Your task to perform on an android device: open device folders in google photos Image 0: 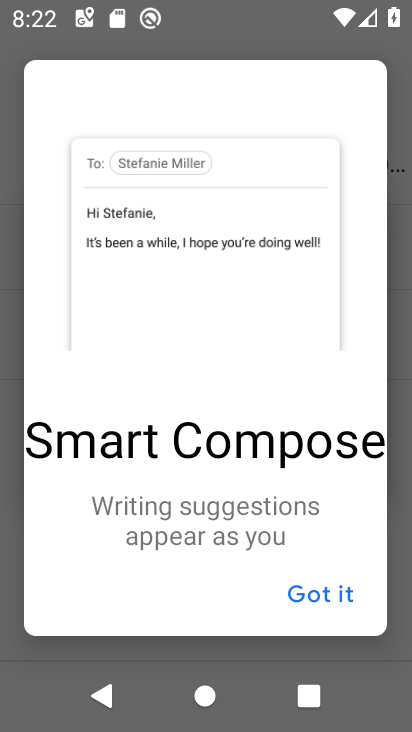
Step 0: press home button
Your task to perform on an android device: open device folders in google photos Image 1: 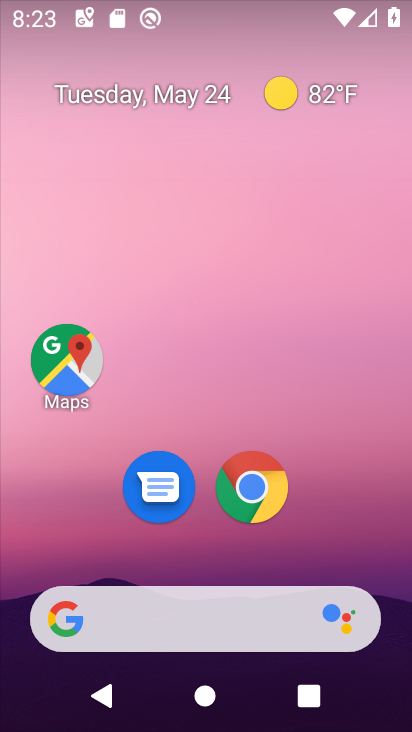
Step 1: drag from (351, 552) to (361, 99)
Your task to perform on an android device: open device folders in google photos Image 2: 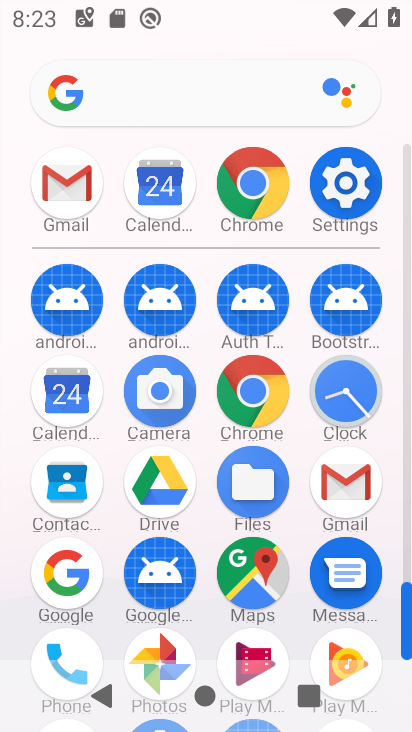
Step 2: click (164, 650)
Your task to perform on an android device: open device folders in google photos Image 3: 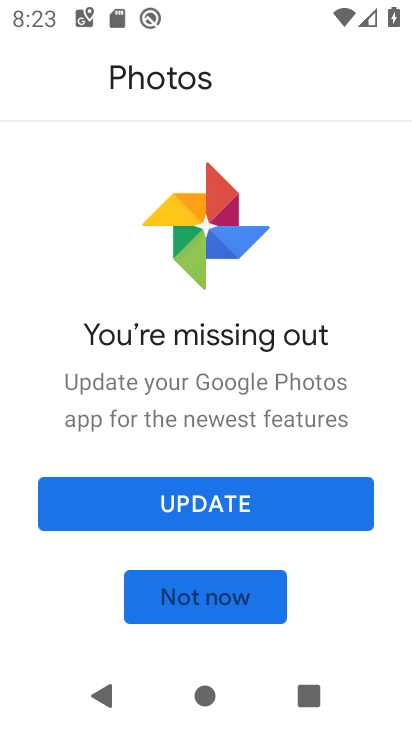
Step 3: click (176, 498)
Your task to perform on an android device: open device folders in google photos Image 4: 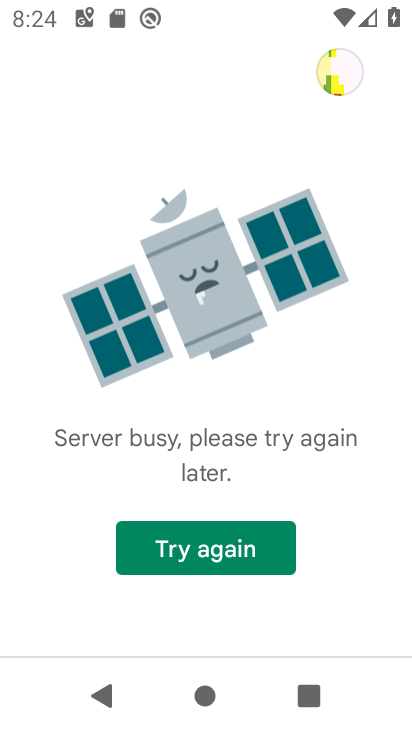
Step 4: task complete